Your task to perform on an android device: Open network settings Image 0: 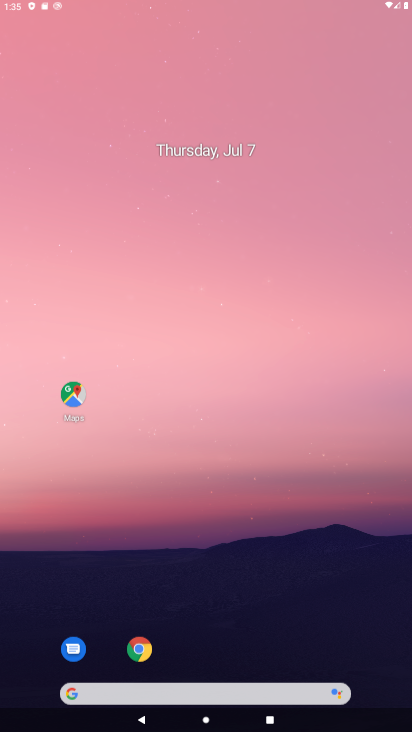
Step 0: press home button
Your task to perform on an android device: Open network settings Image 1: 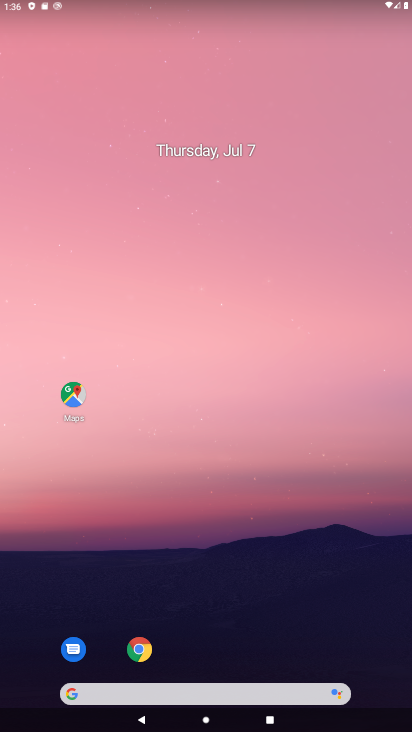
Step 1: drag from (390, 676) to (338, 80)
Your task to perform on an android device: Open network settings Image 2: 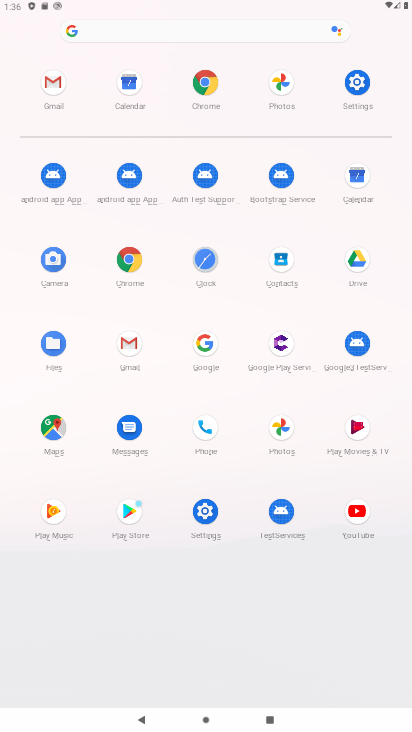
Step 2: click (205, 513)
Your task to perform on an android device: Open network settings Image 3: 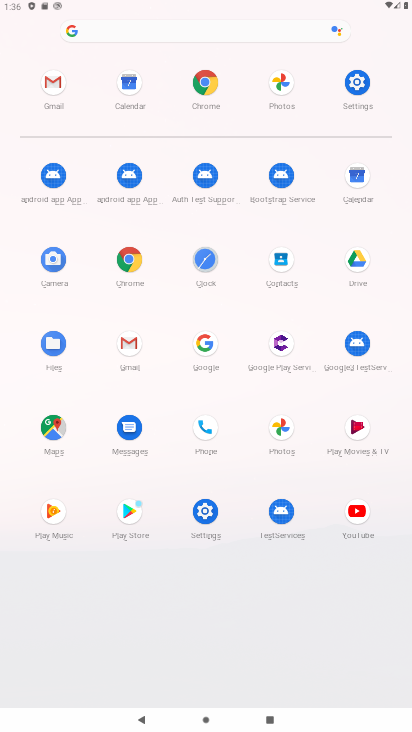
Step 3: click (205, 513)
Your task to perform on an android device: Open network settings Image 4: 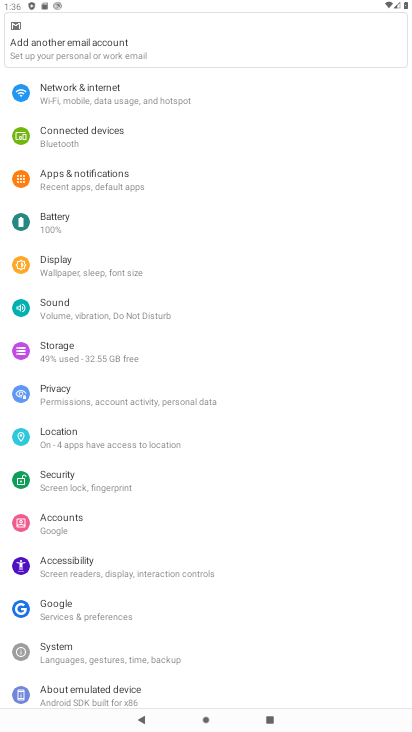
Step 4: click (69, 87)
Your task to perform on an android device: Open network settings Image 5: 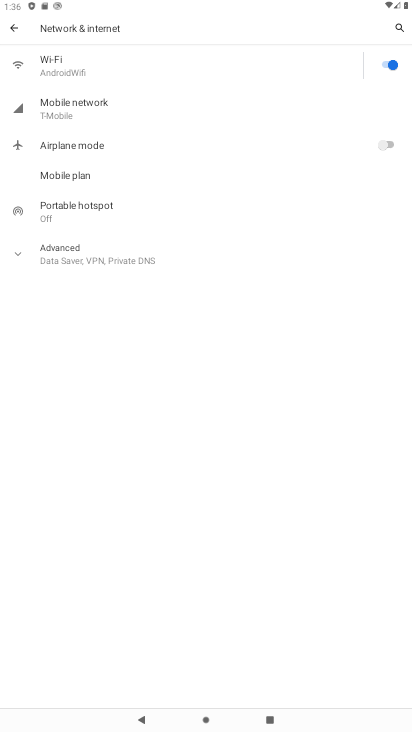
Step 5: click (21, 255)
Your task to perform on an android device: Open network settings Image 6: 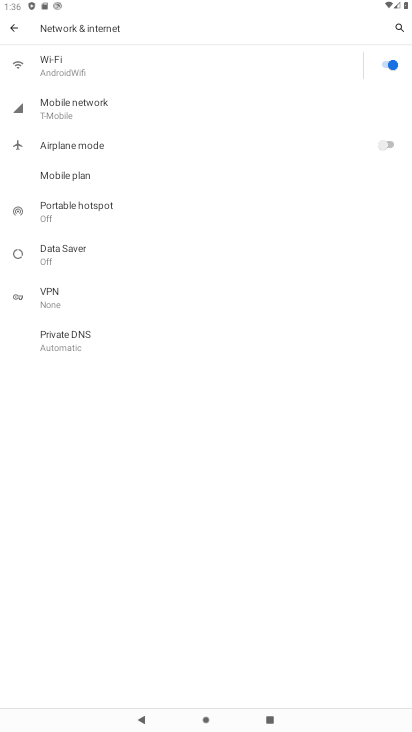
Step 6: click (93, 103)
Your task to perform on an android device: Open network settings Image 7: 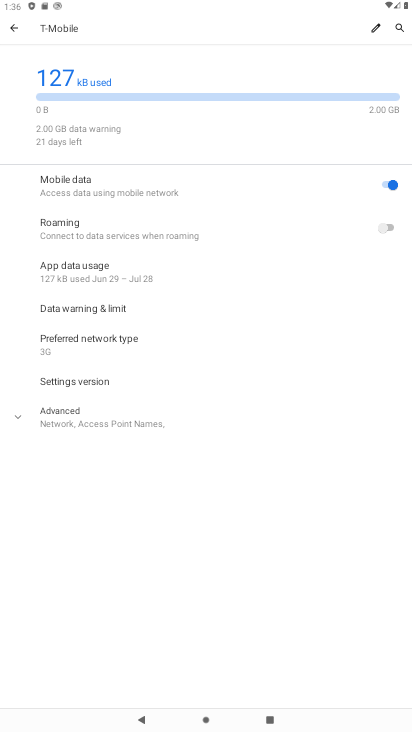
Step 7: task complete